Your task to perform on an android device: toggle location history Image 0: 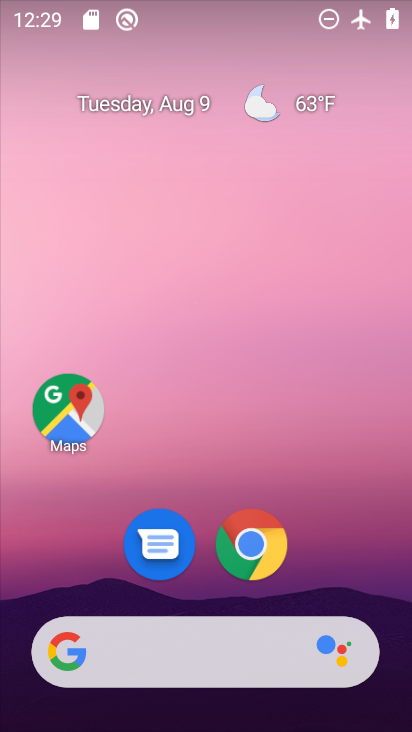
Step 0: drag from (171, 662) to (210, 249)
Your task to perform on an android device: toggle location history Image 1: 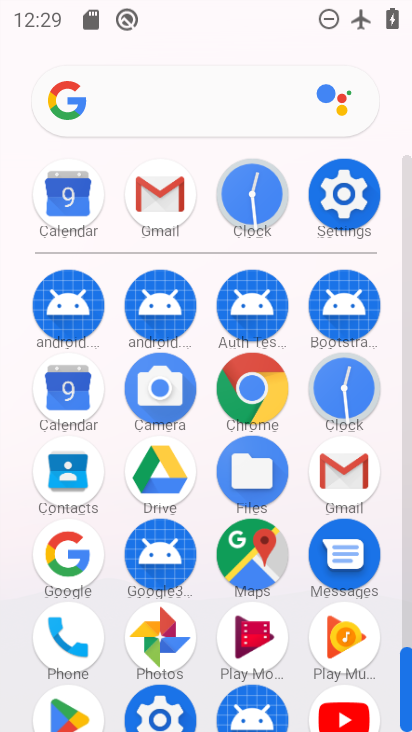
Step 1: click (345, 192)
Your task to perform on an android device: toggle location history Image 2: 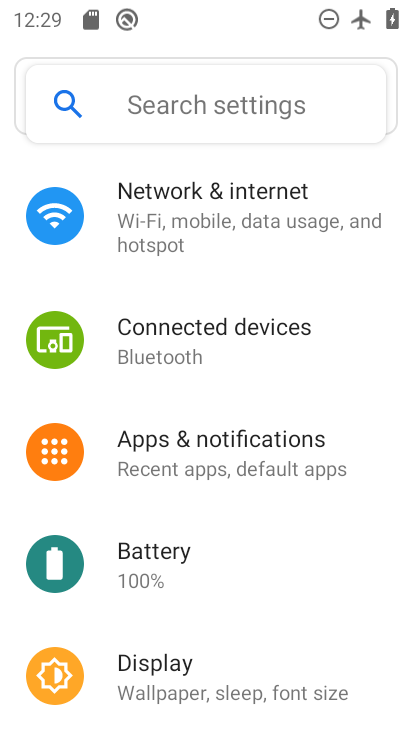
Step 2: drag from (206, 500) to (246, 380)
Your task to perform on an android device: toggle location history Image 3: 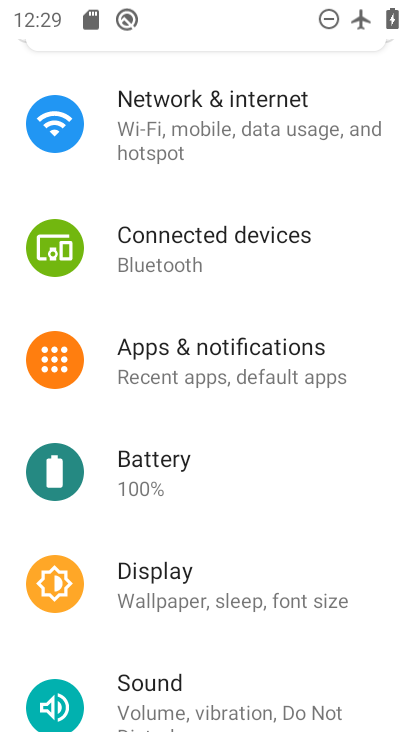
Step 3: drag from (225, 621) to (290, 513)
Your task to perform on an android device: toggle location history Image 4: 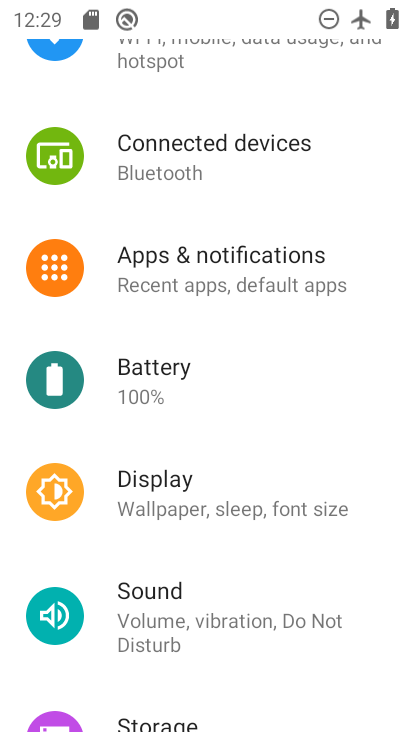
Step 4: drag from (229, 656) to (269, 511)
Your task to perform on an android device: toggle location history Image 5: 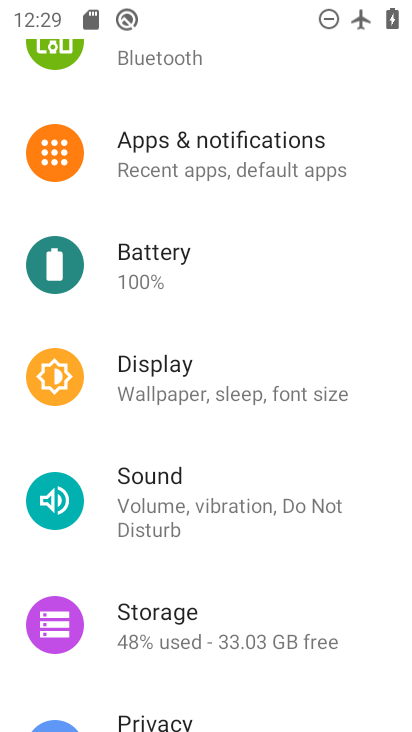
Step 5: drag from (221, 675) to (270, 527)
Your task to perform on an android device: toggle location history Image 6: 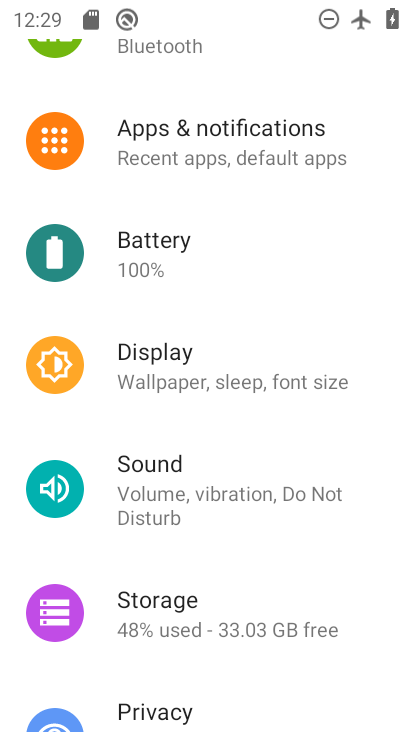
Step 6: drag from (210, 667) to (282, 473)
Your task to perform on an android device: toggle location history Image 7: 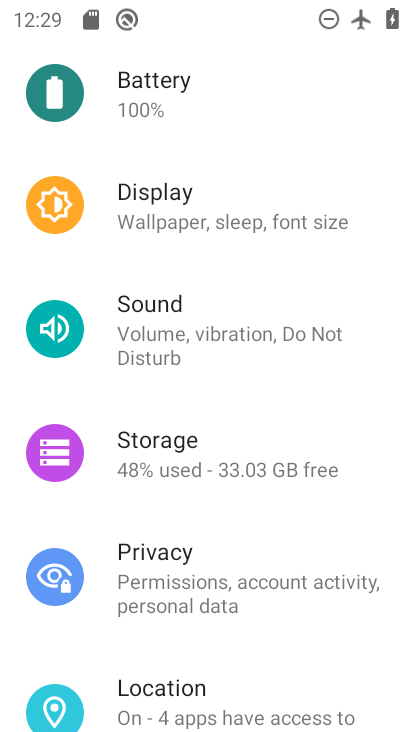
Step 7: drag from (253, 652) to (297, 493)
Your task to perform on an android device: toggle location history Image 8: 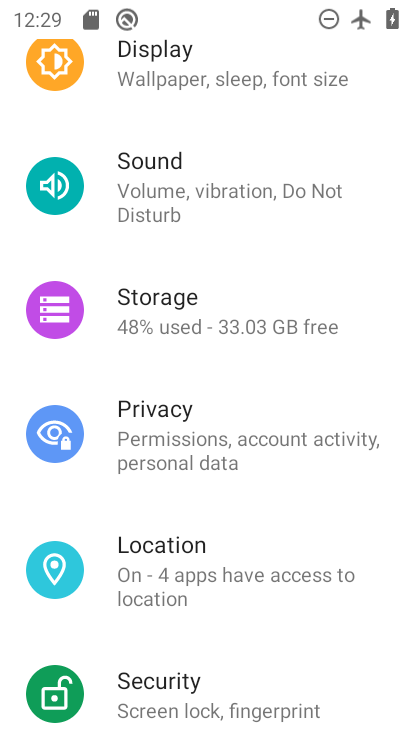
Step 8: click (222, 585)
Your task to perform on an android device: toggle location history Image 9: 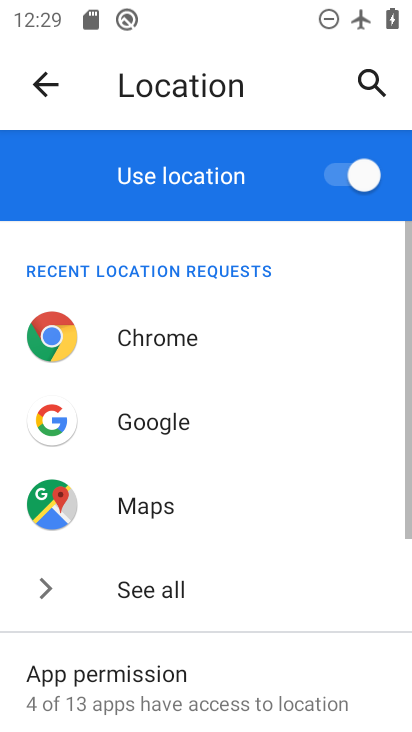
Step 9: drag from (235, 671) to (322, 379)
Your task to perform on an android device: toggle location history Image 10: 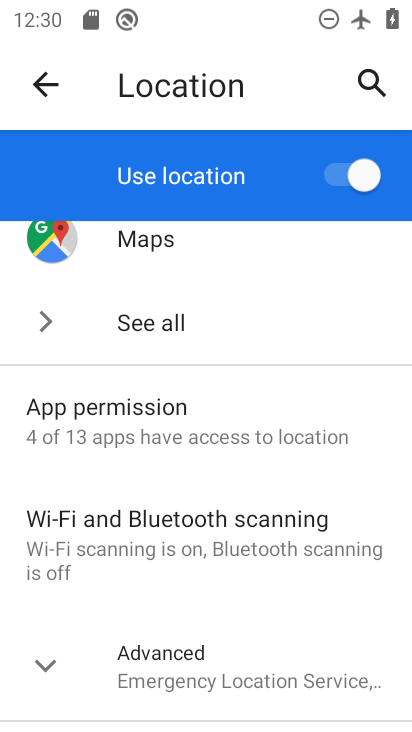
Step 10: click (220, 684)
Your task to perform on an android device: toggle location history Image 11: 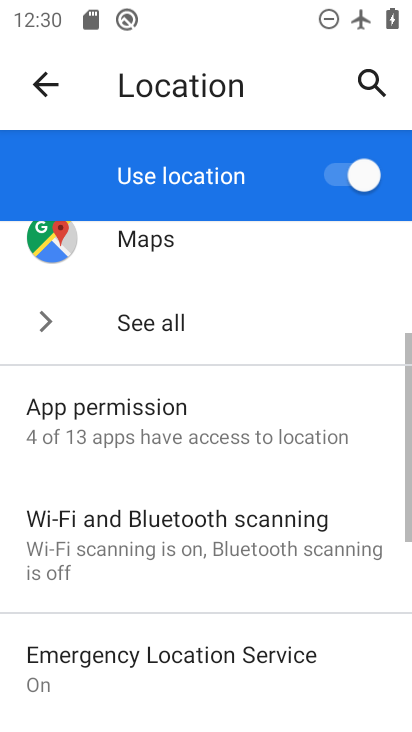
Step 11: drag from (220, 684) to (285, 516)
Your task to perform on an android device: toggle location history Image 12: 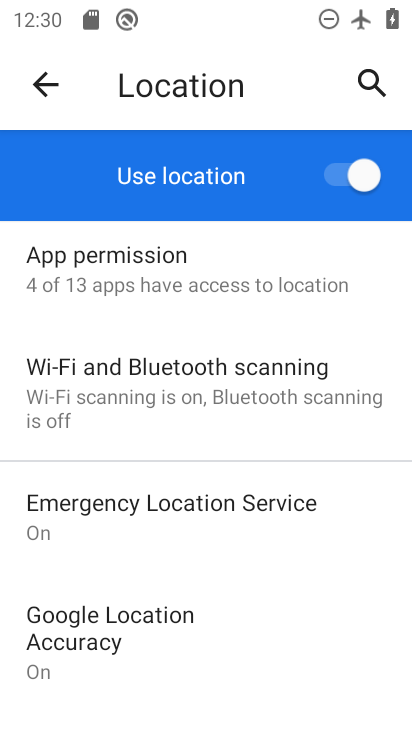
Step 12: drag from (207, 684) to (307, 528)
Your task to perform on an android device: toggle location history Image 13: 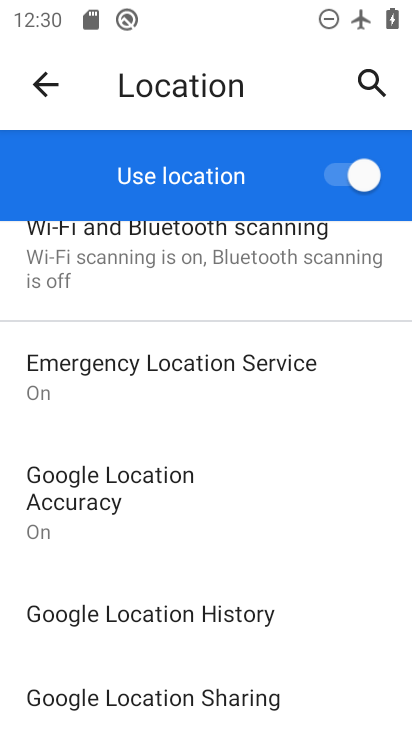
Step 13: click (245, 618)
Your task to perform on an android device: toggle location history Image 14: 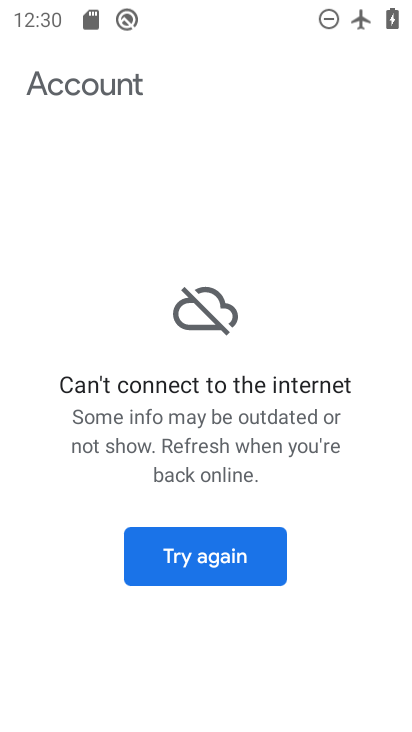
Step 14: click (203, 557)
Your task to perform on an android device: toggle location history Image 15: 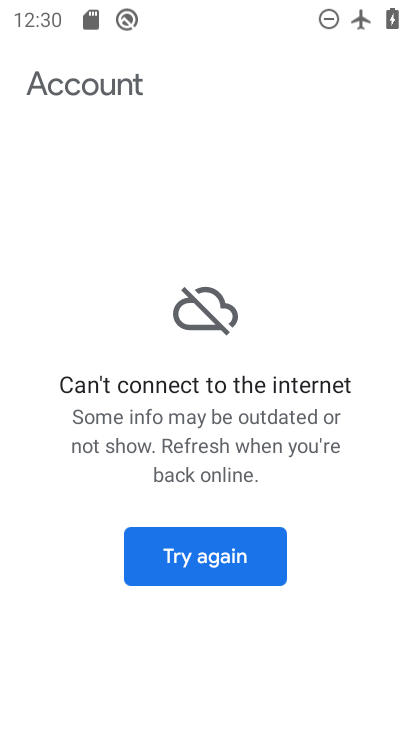
Step 15: task complete